Your task to perform on an android device: clear all cookies in the chrome app Image 0: 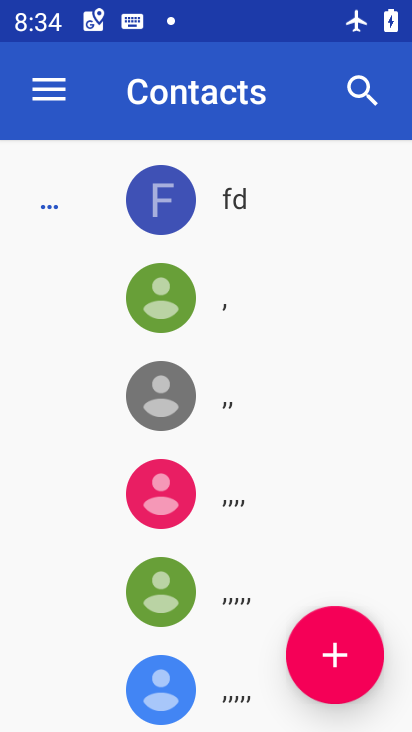
Step 0: press home button
Your task to perform on an android device: clear all cookies in the chrome app Image 1: 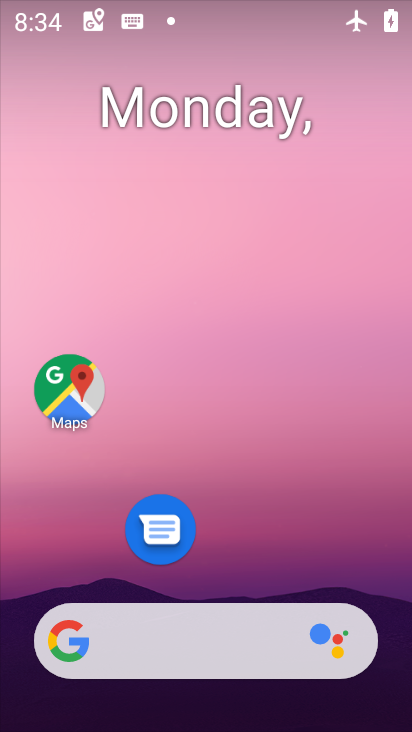
Step 1: drag from (225, 573) to (270, 198)
Your task to perform on an android device: clear all cookies in the chrome app Image 2: 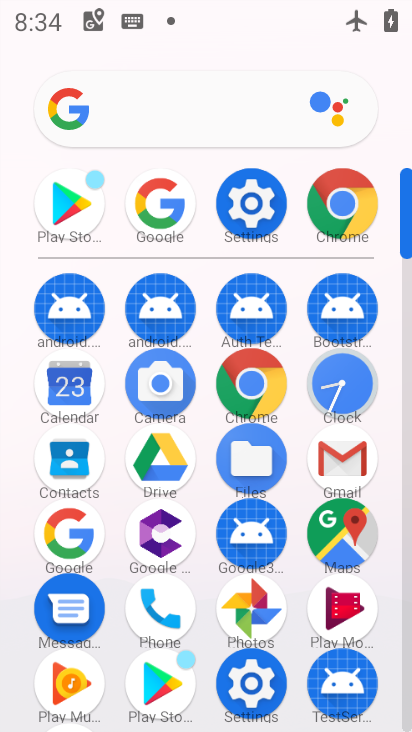
Step 2: click (334, 217)
Your task to perform on an android device: clear all cookies in the chrome app Image 3: 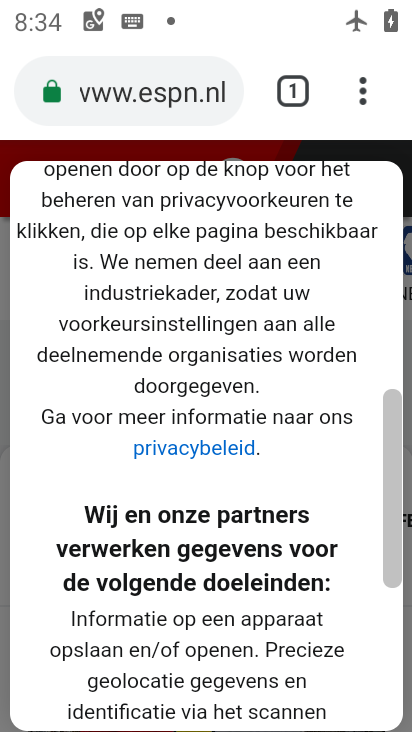
Step 3: drag from (362, 102) to (109, 506)
Your task to perform on an android device: clear all cookies in the chrome app Image 4: 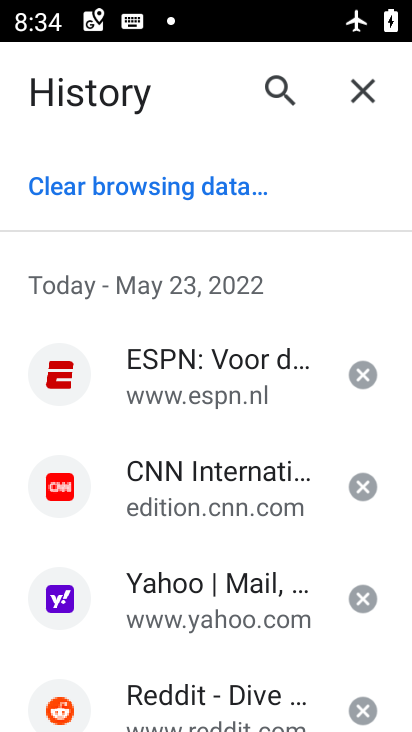
Step 4: click (113, 184)
Your task to perform on an android device: clear all cookies in the chrome app Image 5: 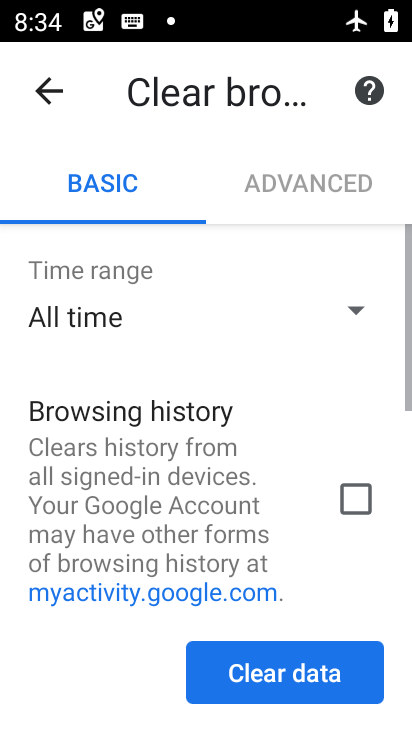
Step 5: click (355, 493)
Your task to perform on an android device: clear all cookies in the chrome app Image 6: 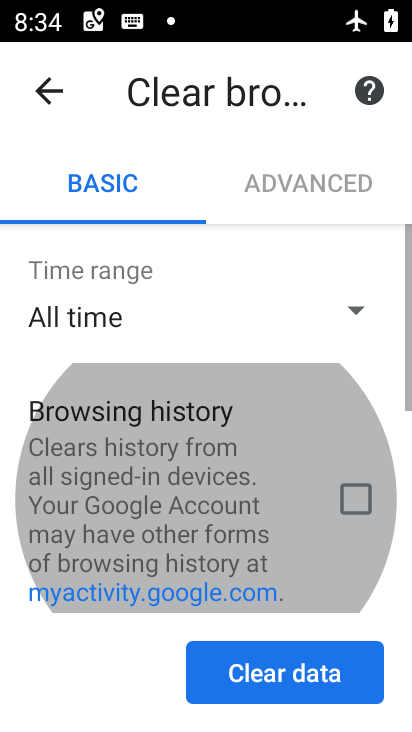
Step 6: drag from (248, 558) to (268, 244)
Your task to perform on an android device: clear all cookies in the chrome app Image 7: 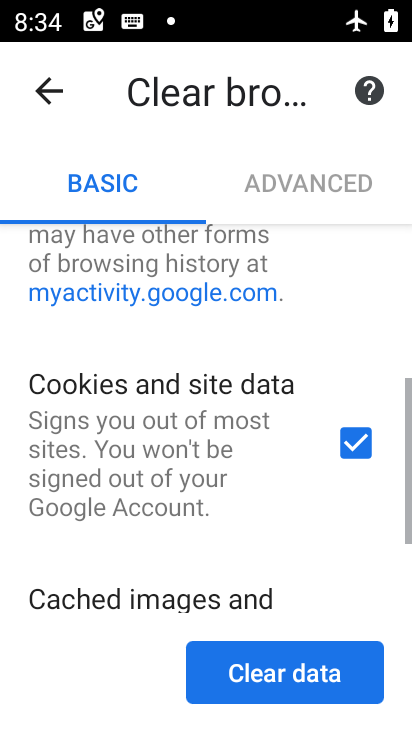
Step 7: drag from (287, 560) to (298, 350)
Your task to perform on an android device: clear all cookies in the chrome app Image 8: 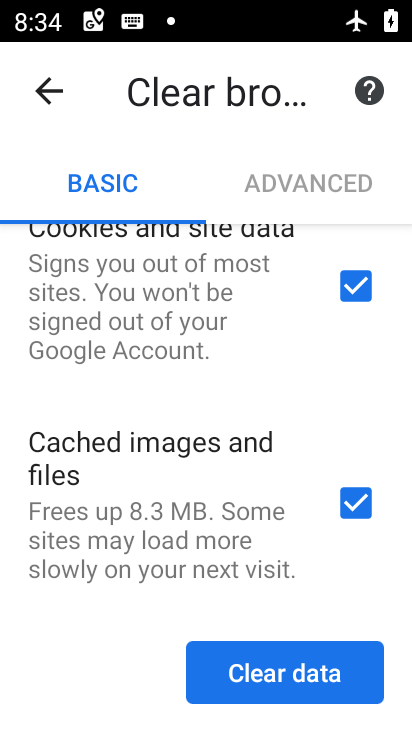
Step 8: click (257, 685)
Your task to perform on an android device: clear all cookies in the chrome app Image 9: 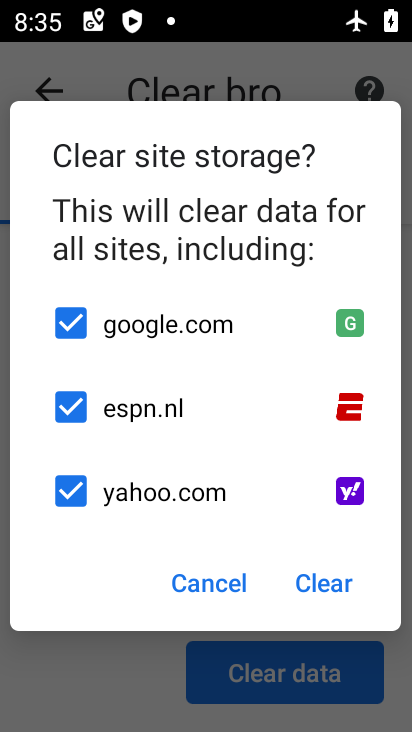
Step 9: click (310, 586)
Your task to perform on an android device: clear all cookies in the chrome app Image 10: 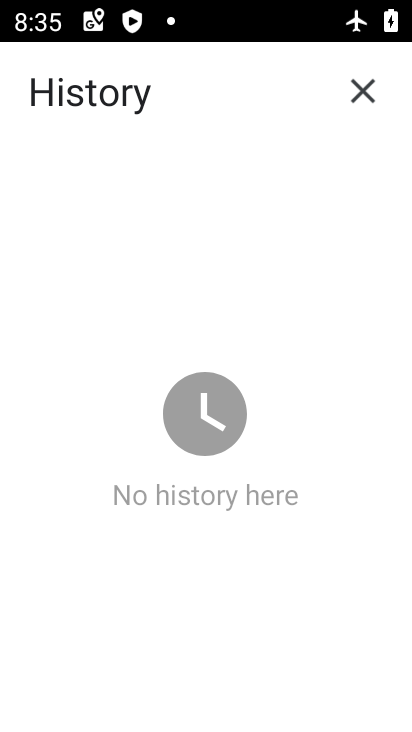
Step 10: task complete